Your task to perform on an android device: add a label to a message in the gmail app Image 0: 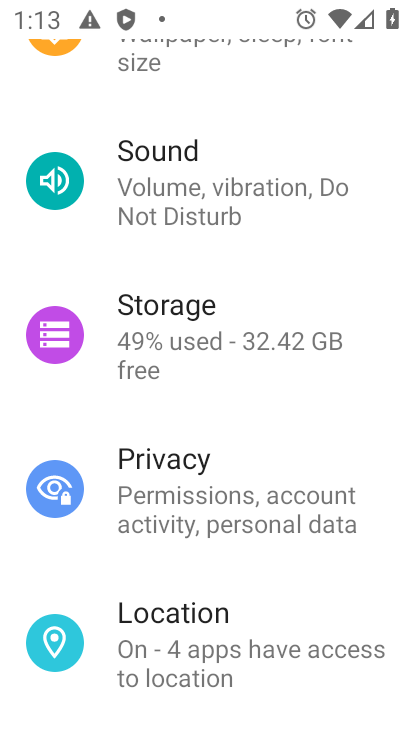
Step 0: press home button
Your task to perform on an android device: add a label to a message in the gmail app Image 1: 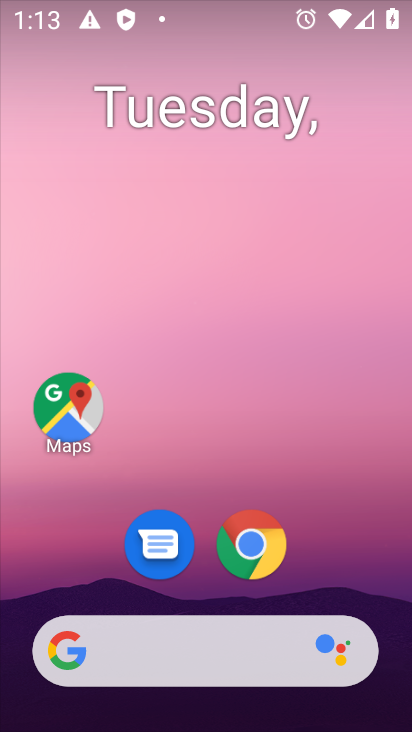
Step 1: drag from (393, 496) to (372, 0)
Your task to perform on an android device: add a label to a message in the gmail app Image 2: 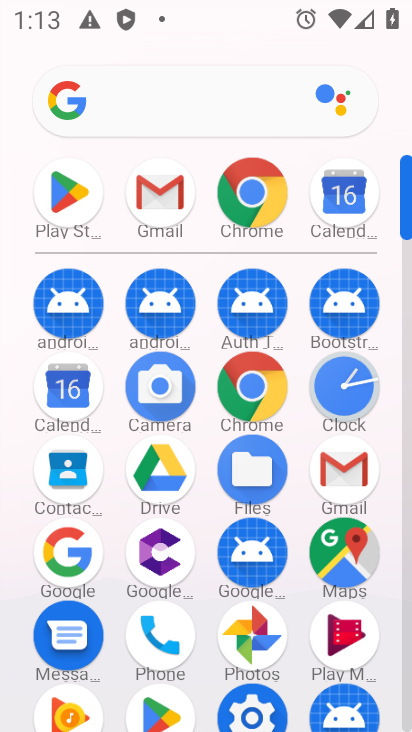
Step 2: click (329, 468)
Your task to perform on an android device: add a label to a message in the gmail app Image 3: 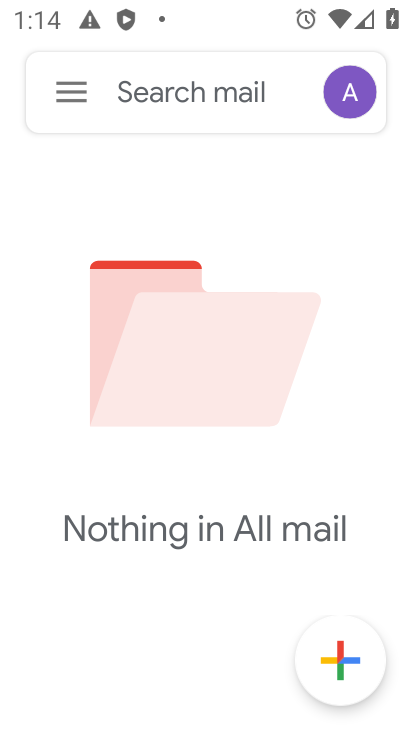
Step 3: task complete